Your task to perform on an android device: Open accessibility settings Image 0: 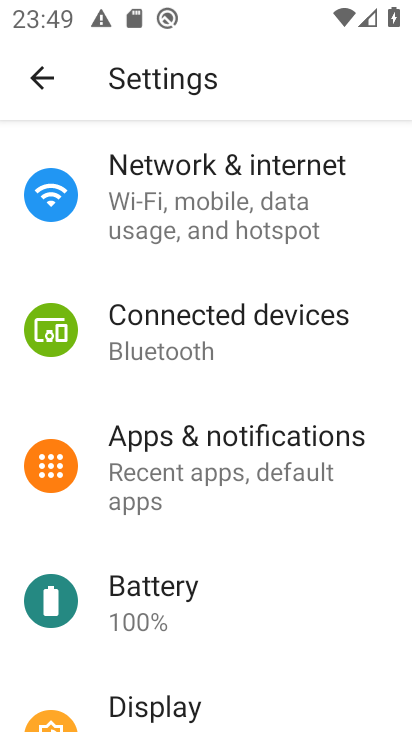
Step 0: press home button
Your task to perform on an android device: Open accessibility settings Image 1: 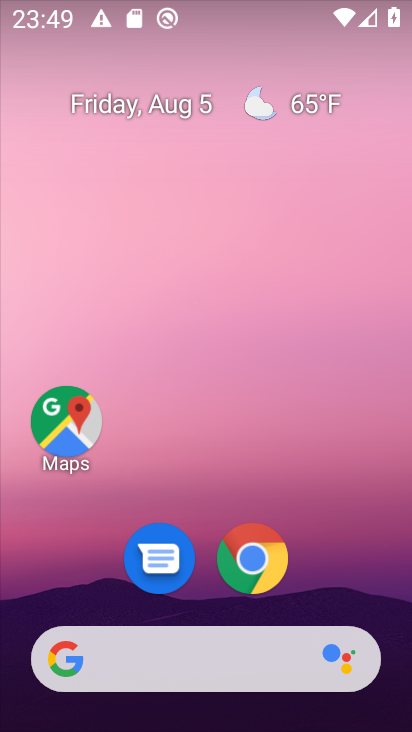
Step 1: drag from (359, 558) to (336, 155)
Your task to perform on an android device: Open accessibility settings Image 2: 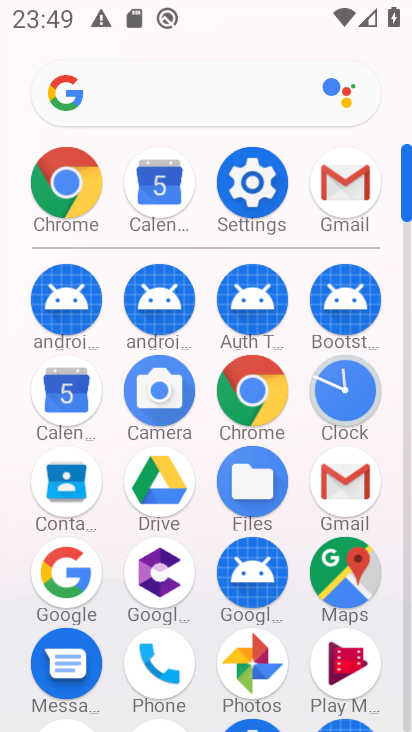
Step 2: click (254, 189)
Your task to perform on an android device: Open accessibility settings Image 3: 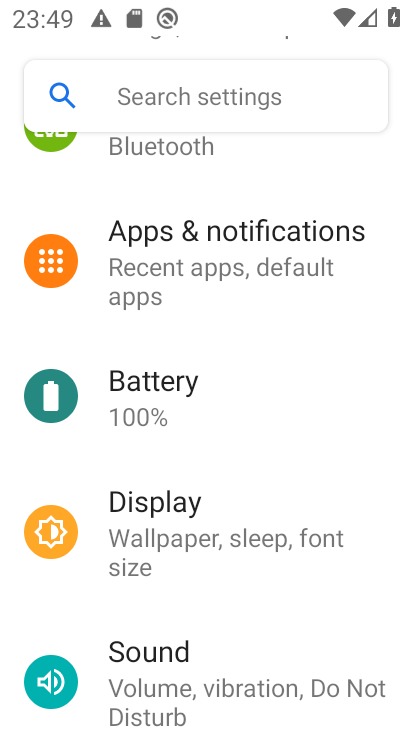
Step 3: drag from (366, 184) to (367, 299)
Your task to perform on an android device: Open accessibility settings Image 4: 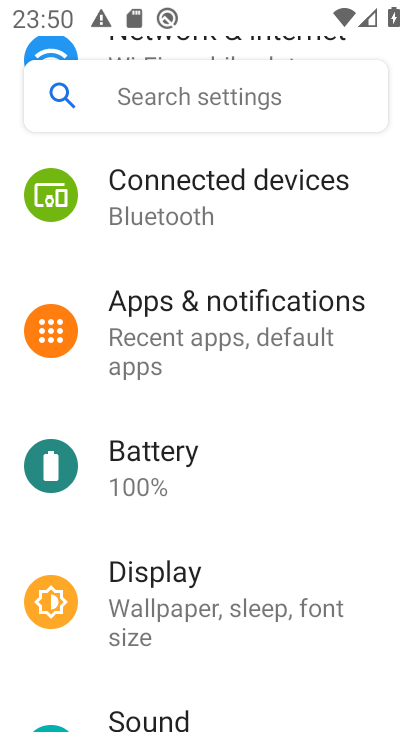
Step 4: drag from (377, 176) to (383, 318)
Your task to perform on an android device: Open accessibility settings Image 5: 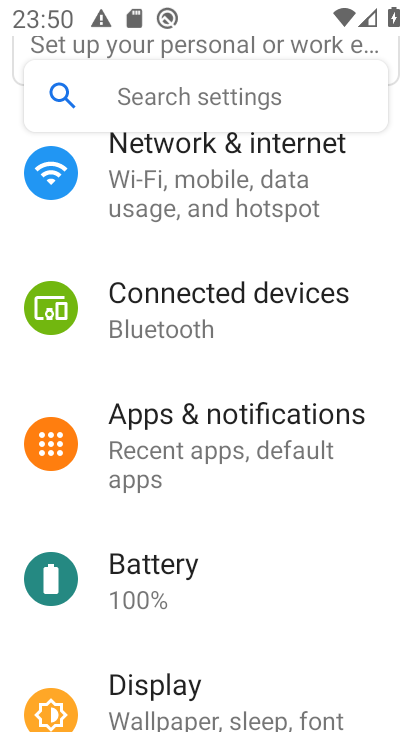
Step 5: drag from (374, 179) to (369, 319)
Your task to perform on an android device: Open accessibility settings Image 6: 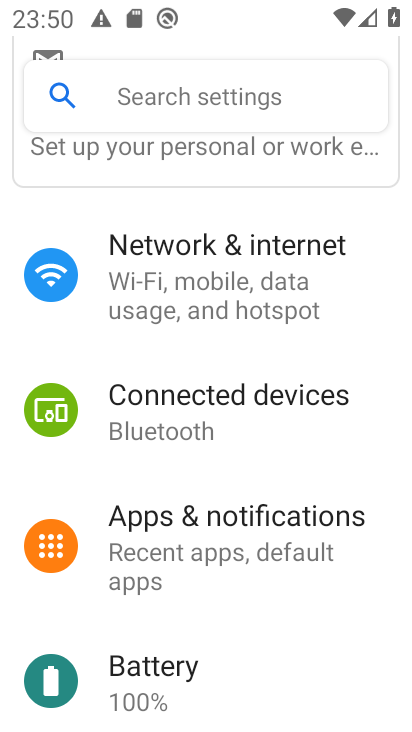
Step 6: drag from (373, 207) to (377, 381)
Your task to perform on an android device: Open accessibility settings Image 7: 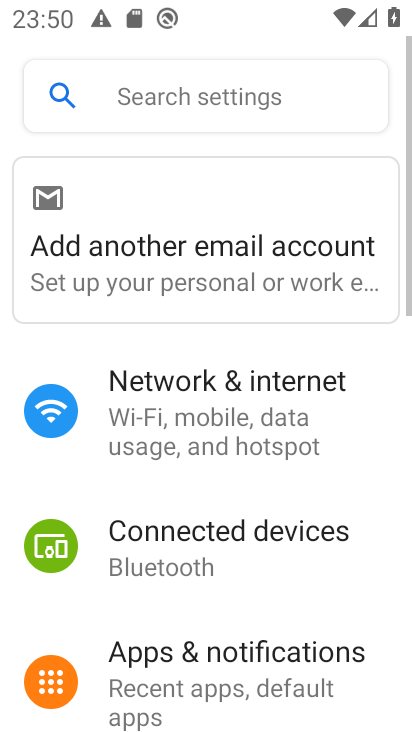
Step 7: drag from (363, 467) to (362, 365)
Your task to perform on an android device: Open accessibility settings Image 8: 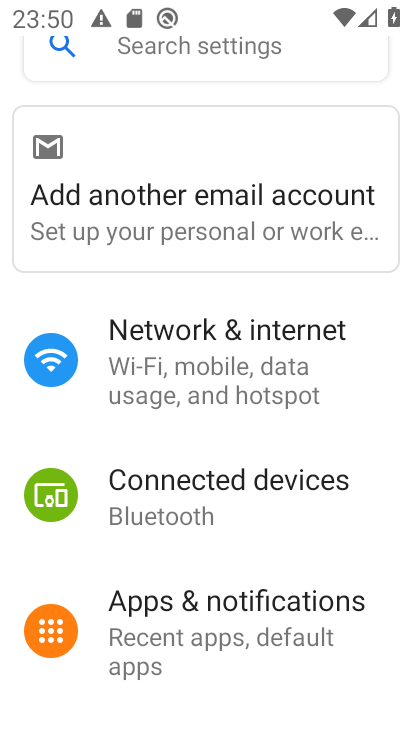
Step 8: drag from (357, 502) to (372, 349)
Your task to perform on an android device: Open accessibility settings Image 9: 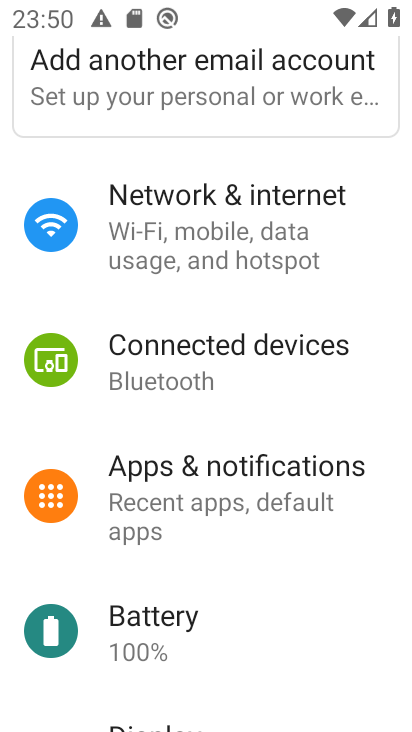
Step 9: drag from (358, 521) to (363, 349)
Your task to perform on an android device: Open accessibility settings Image 10: 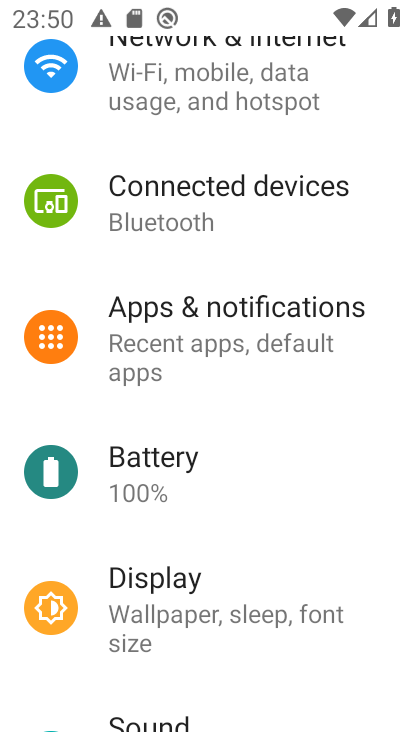
Step 10: drag from (311, 515) to (316, 407)
Your task to perform on an android device: Open accessibility settings Image 11: 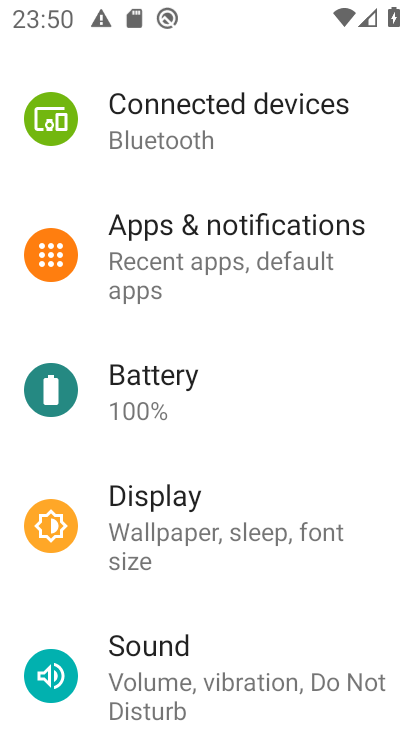
Step 11: drag from (294, 578) to (311, 446)
Your task to perform on an android device: Open accessibility settings Image 12: 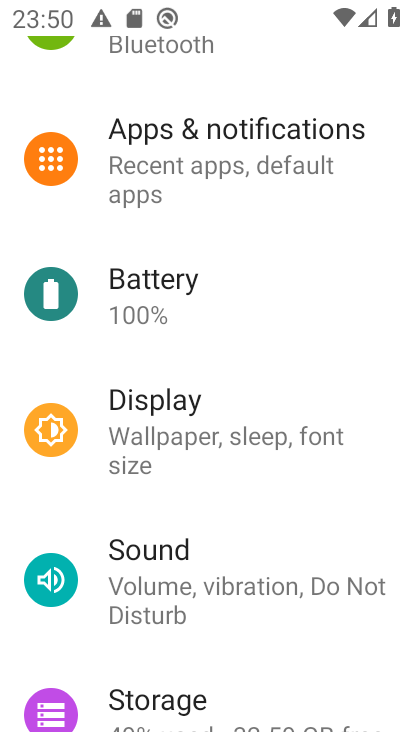
Step 12: drag from (266, 606) to (283, 469)
Your task to perform on an android device: Open accessibility settings Image 13: 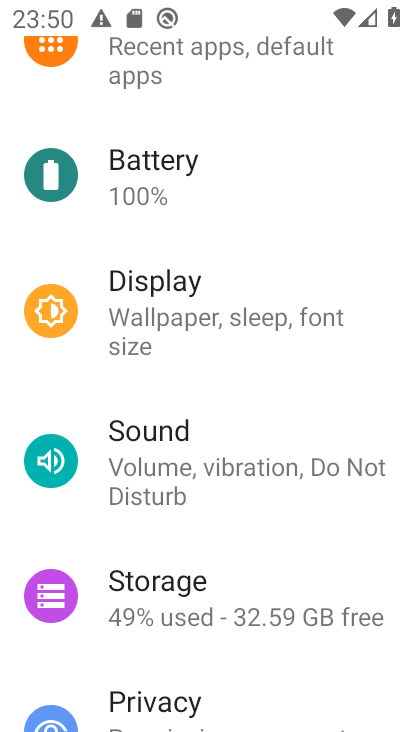
Step 13: drag from (258, 617) to (292, 460)
Your task to perform on an android device: Open accessibility settings Image 14: 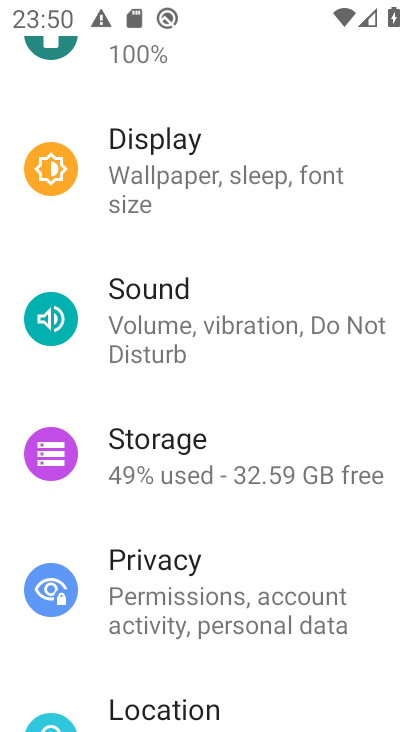
Step 14: drag from (268, 582) to (295, 395)
Your task to perform on an android device: Open accessibility settings Image 15: 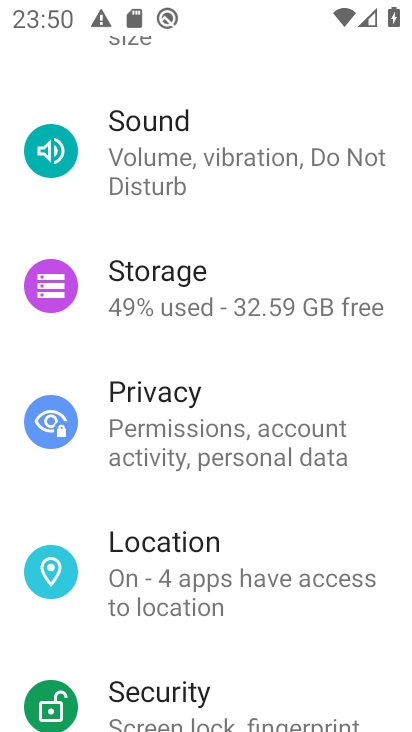
Step 15: drag from (289, 624) to (297, 392)
Your task to perform on an android device: Open accessibility settings Image 16: 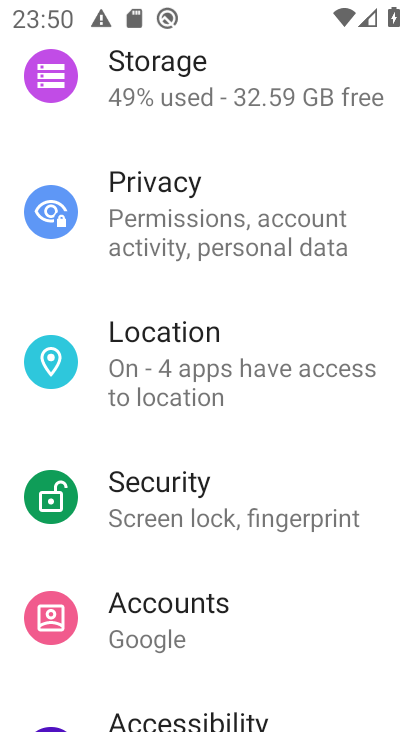
Step 16: drag from (273, 617) to (285, 436)
Your task to perform on an android device: Open accessibility settings Image 17: 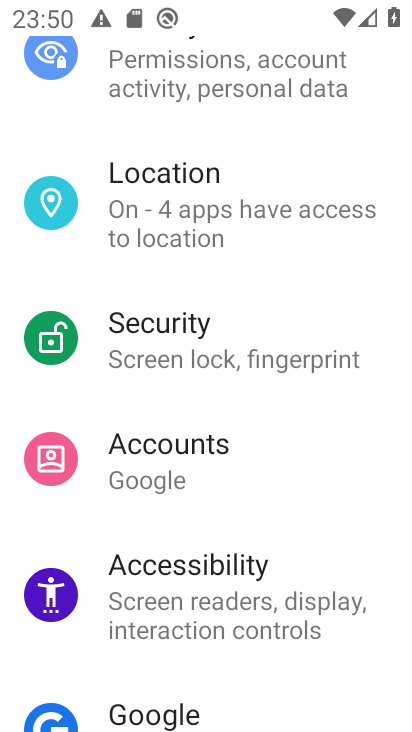
Step 17: drag from (289, 666) to (319, 454)
Your task to perform on an android device: Open accessibility settings Image 18: 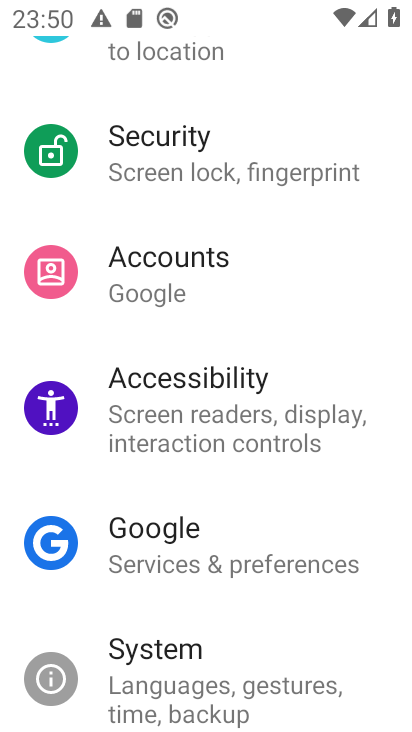
Step 18: click (301, 417)
Your task to perform on an android device: Open accessibility settings Image 19: 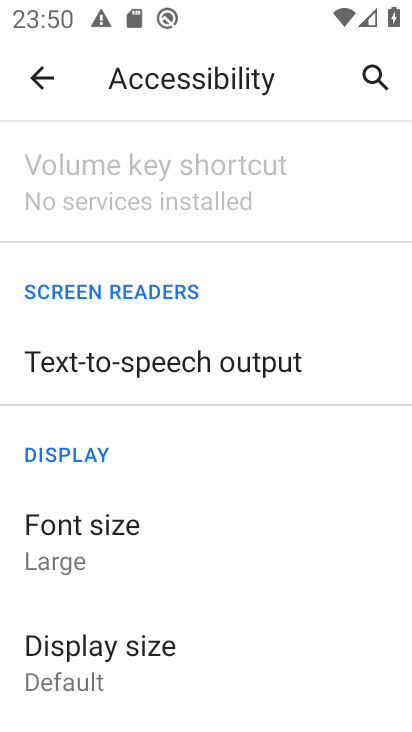
Step 19: task complete